Your task to perform on an android device: turn on notifications settings in the gmail app Image 0: 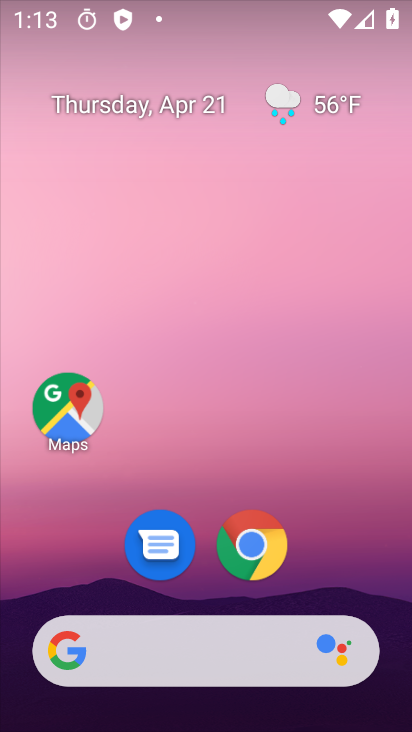
Step 0: drag from (159, 559) to (285, 68)
Your task to perform on an android device: turn on notifications settings in the gmail app Image 1: 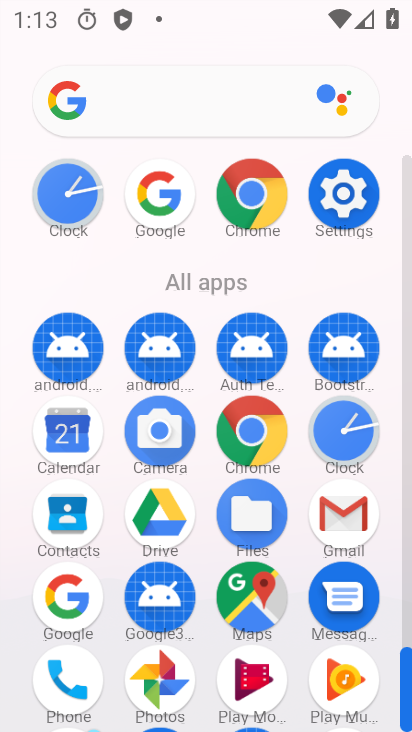
Step 1: click (349, 529)
Your task to perform on an android device: turn on notifications settings in the gmail app Image 2: 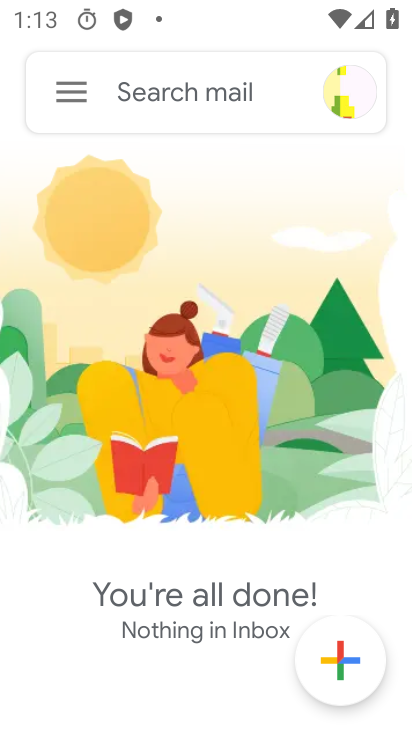
Step 2: click (81, 97)
Your task to perform on an android device: turn on notifications settings in the gmail app Image 3: 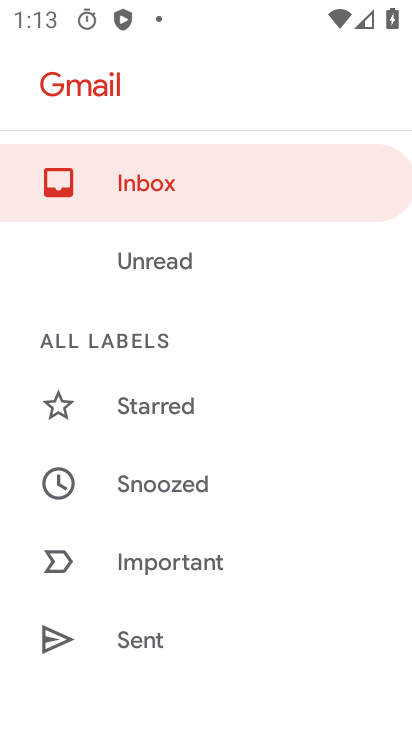
Step 3: drag from (230, 637) to (342, 232)
Your task to perform on an android device: turn on notifications settings in the gmail app Image 4: 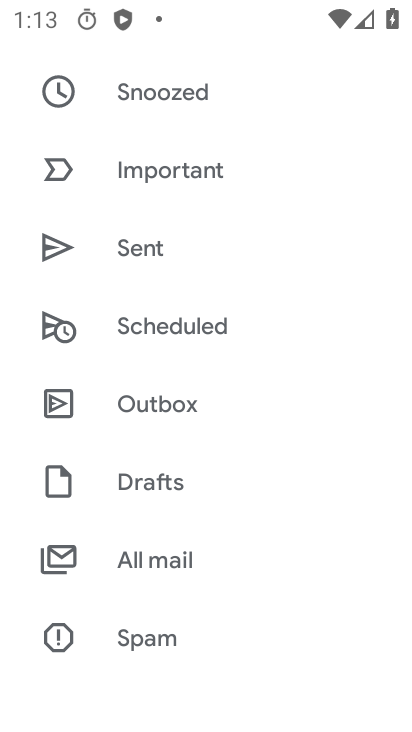
Step 4: drag from (217, 598) to (341, 147)
Your task to perform on an android device: turn on notifications settings in the gmail app Image 5: 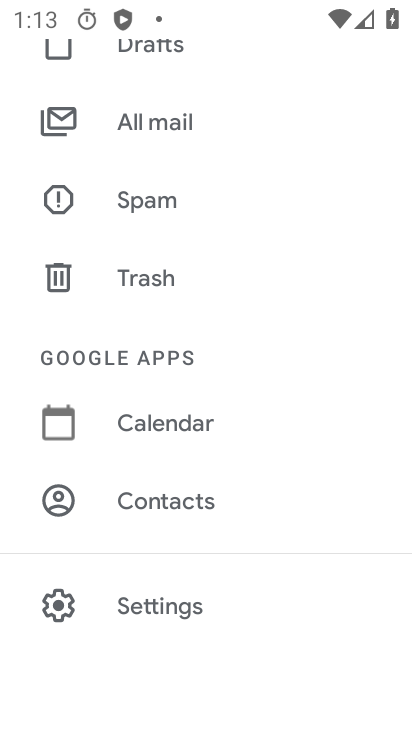
Step 5: click (172, 608)
Your task to perform on an android device: turn on notifications settings in the gmail app Image 6: 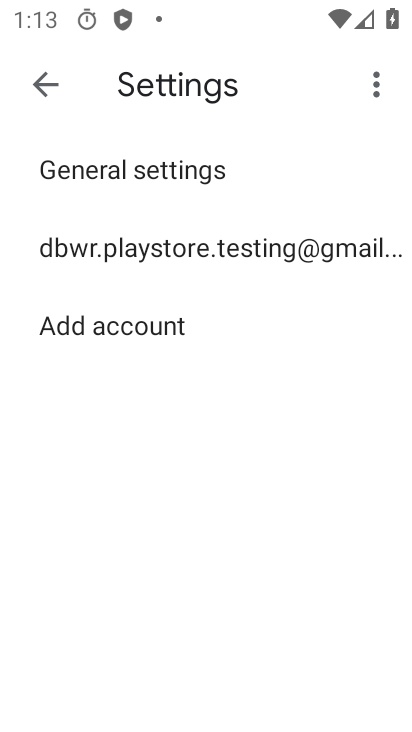
Step 6: click (260, 244)
Your task to perform on an android device: turn on notifications settings in the gmail app Image 7: 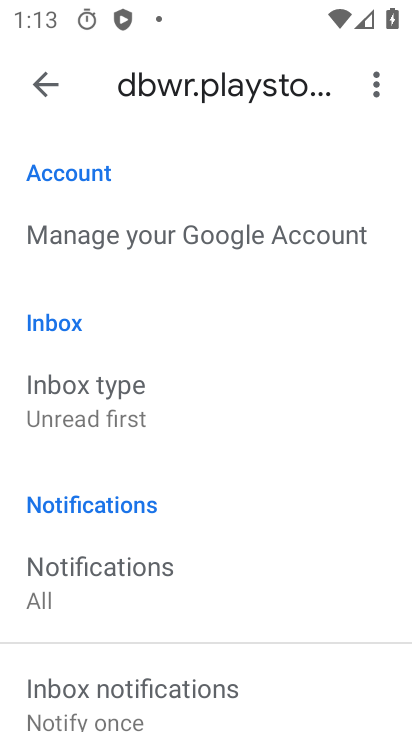
Step 7: click (49, 588)
Your task to perform on an android device: turn on notifications settings in the gmail app Image 8: 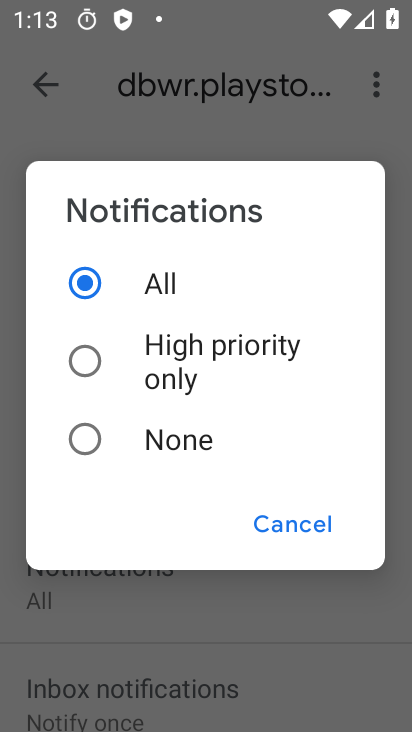
Step 8: task complete